Your task to perform on an android device: turn on bluetooth scan Image 0: 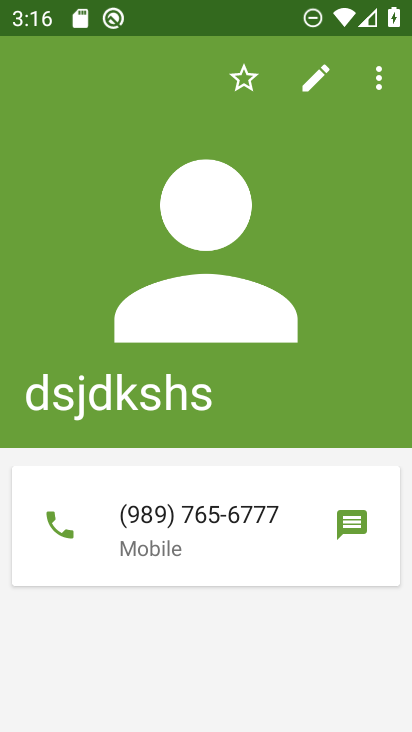
Step 0: press home button
Your task to perform on an android device: turn on bluetooth scan Image 1: 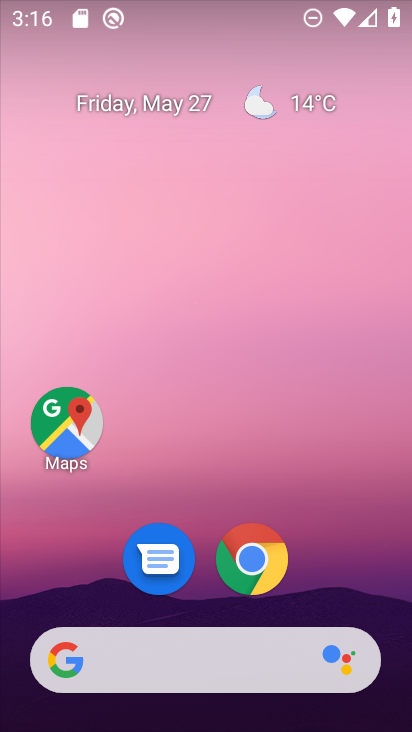
Step 1: drag from (255, 5) to (196, 513)
Your task to perform on an android device: turn on bluetooth scan Image 2: 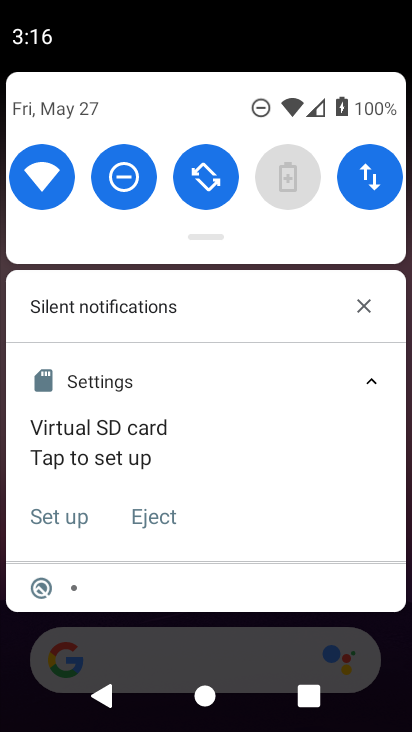
Step 2: click (16, 163)
Your task to perform on an android device: turn on bluetooth scan Image 3: 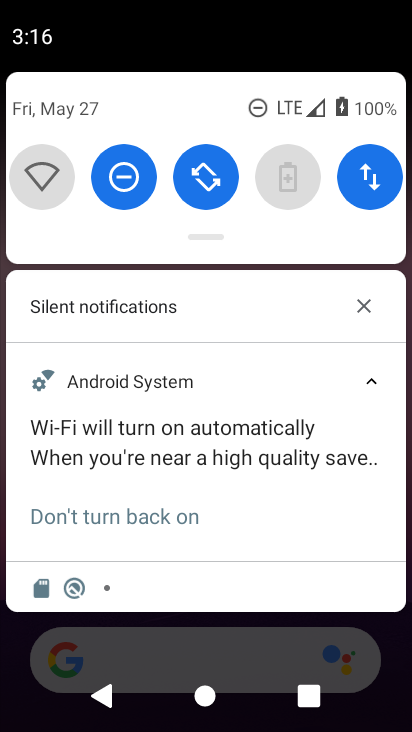
Step 3: drag from (393, 217) to (57, 193)
Your task to perform on an android device: turn on bluetooth scan Image 4: 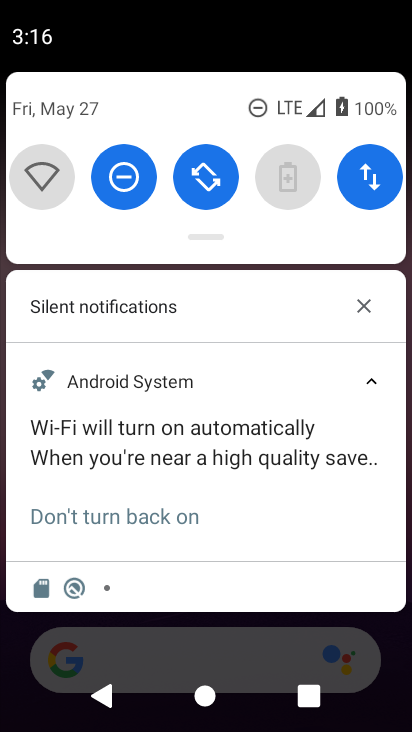
Step 4: click (211, 238)
Your task to perform on an android device: turn on bluetooth scan Image 5: 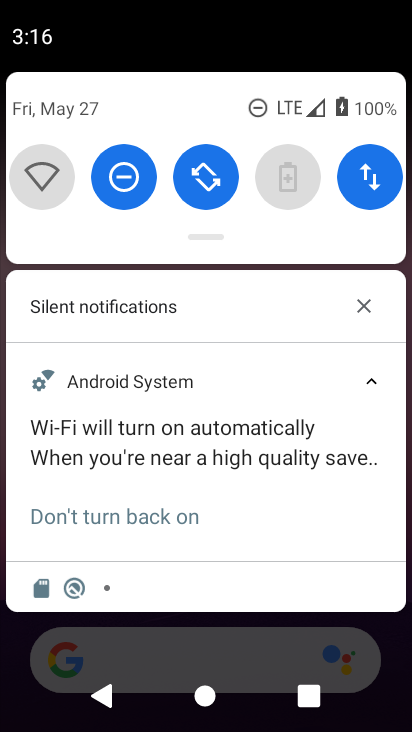
Step 5: drag from (211, 239) to (238, 562)
Your task to perform on an android device: turn on bluetooth scan Image 6: 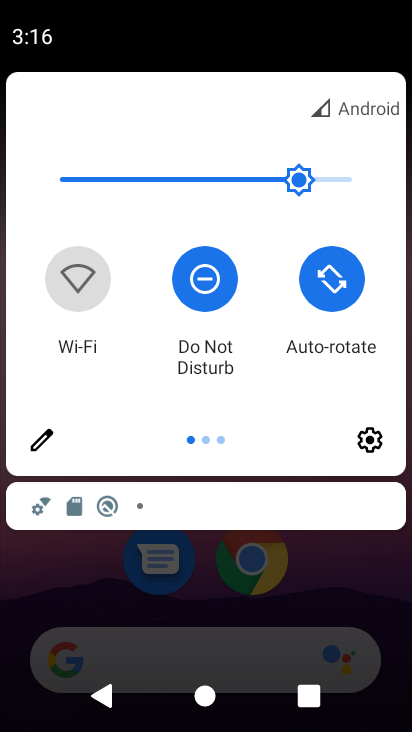
Step 6: click (75, 359)
Your task to perform on an android device: turn on bluetooth scan Image 7: 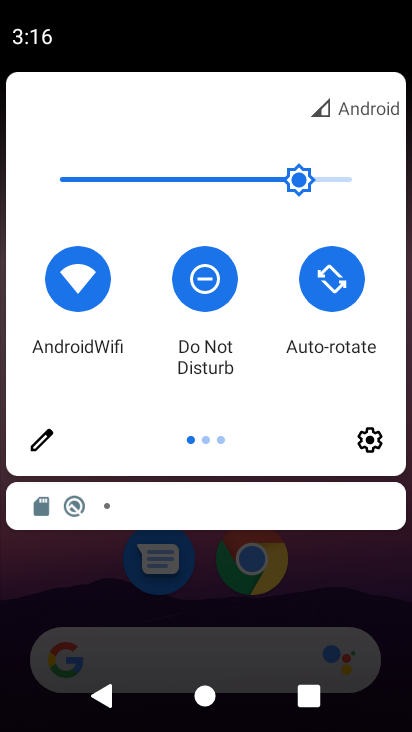
Step 7: drag from (82, 294) to (5, 304)
Your task to perform on an android device: turn on bluetooth scan Image 8: 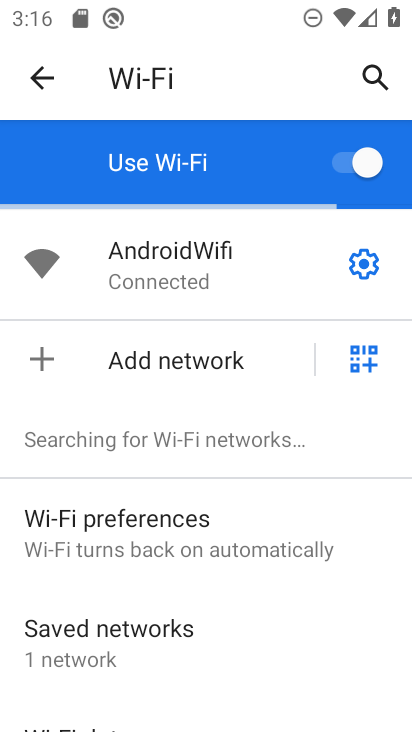
Step 8: drag from (158, 316) to (74, 312)
Your task to perform on an android device: turn on bluetooth scan Image 9: 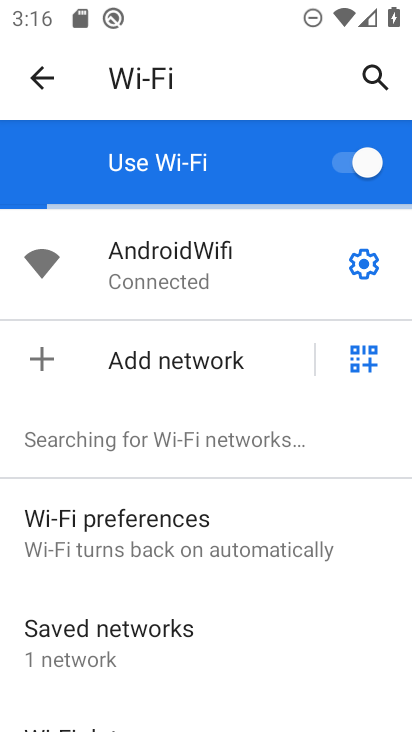
Step 9: drag from (338, 381) to (2, 368)
Your task to perform on an android device: turn on bluetooth scan Image 10: 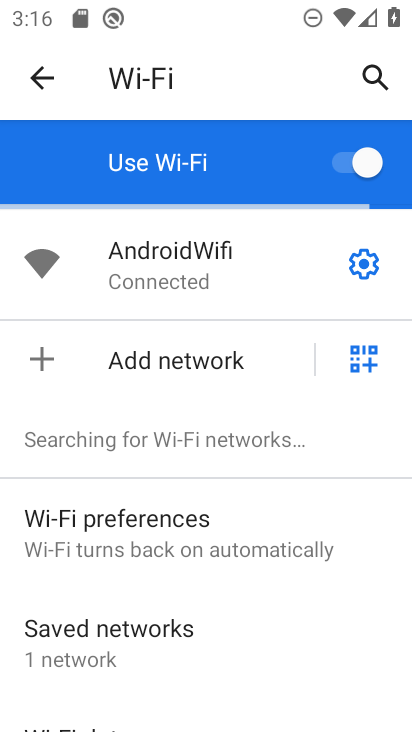
Step 10: click (375, 444)
Your task to perform on an android device: turn on bluetooth scan Image 11: 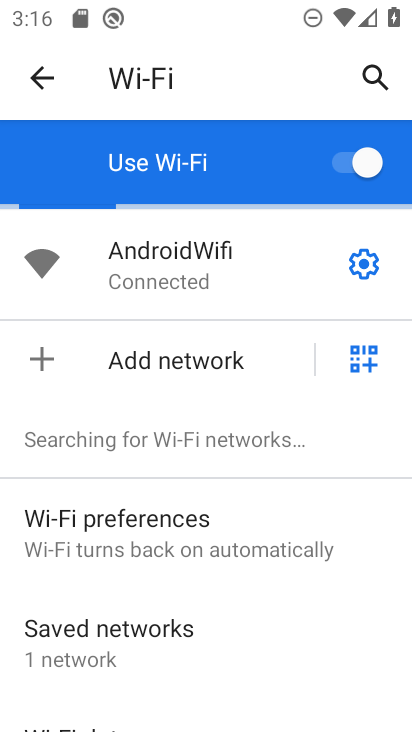
Step 11: click (30, 73)
Your task to perform on an android device: turn on bluetooth scan Image 12: 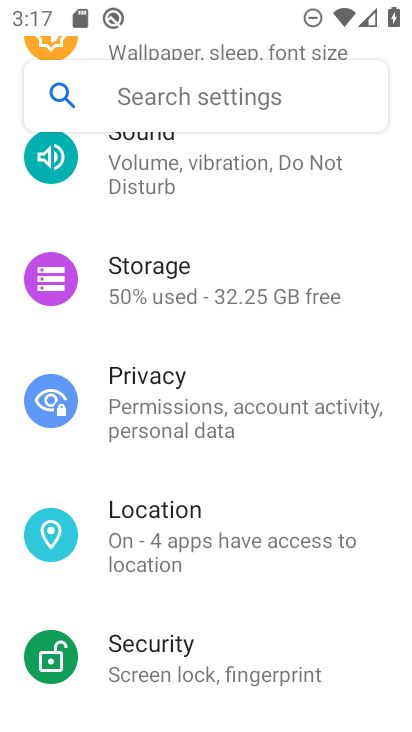
Step 12: drag from (296, 200) to (295, 610)
Your task to perform on an android device: turn on bluetooth scan Image 13: 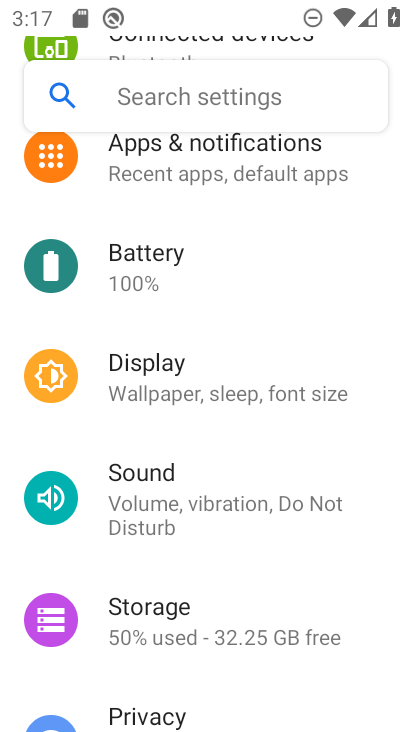
Step 13: drag from (241, 491) to (240, 570)
Your task to perform on an android device: turn on bluetooth scan Image 14: 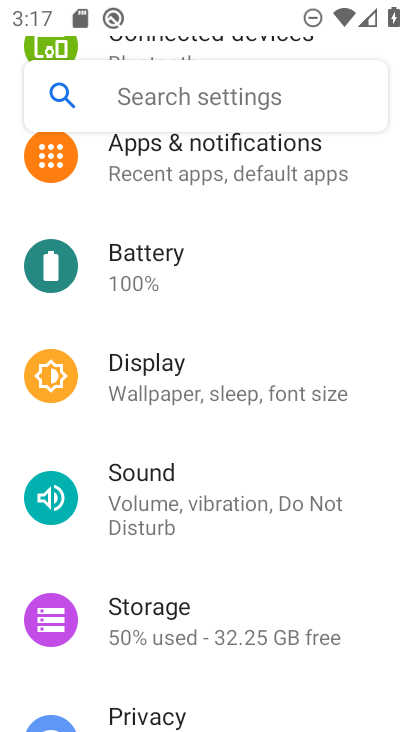
Step 14: drag from (261, 246) to (256, 561)
Your task to perform on an android device: turn on bluetooth scan Image 15: 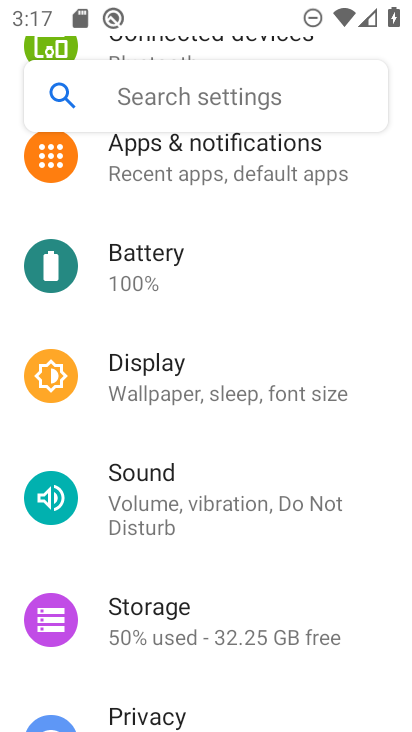
Step 15: drag from (346, 165) to (314, 474)
Your task to perform on an android device: turn on bluetooth scan Image 16: 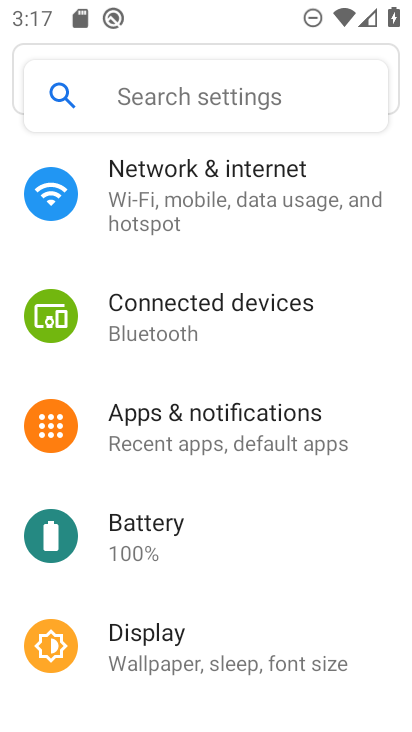
Step 16: drag from (246, 171) to (221, 449)
Your task to perform on an android device: turn on bluetooth scan Image 17: 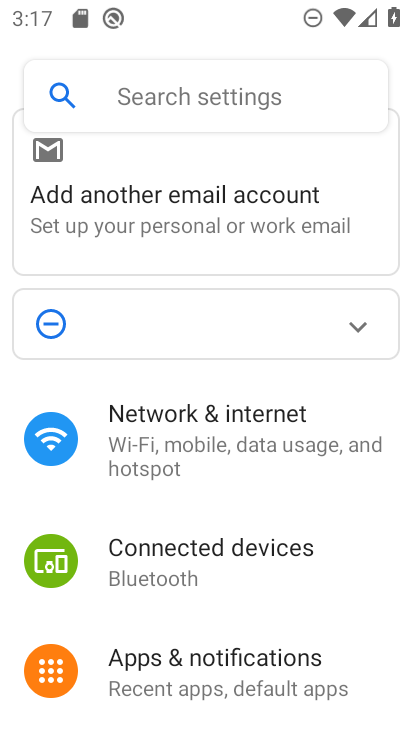
Step 17: click (168, 567)
Your task to perform on an android device: turn on bluetooth scan Image 18: 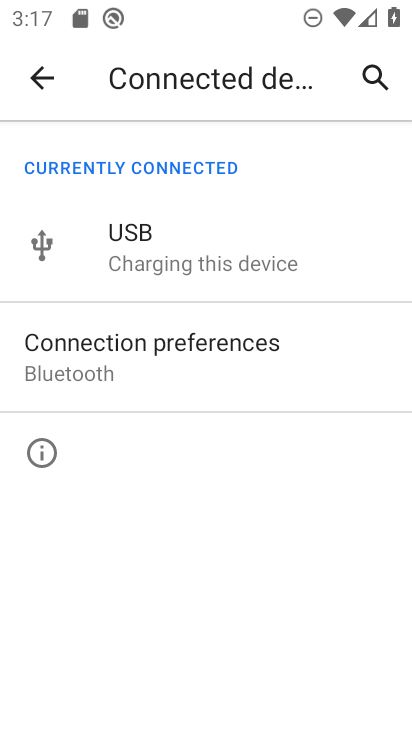
Step 18: click (43, 78)
Your task to perform on an android device: turn on bluetooth scan Image 19: 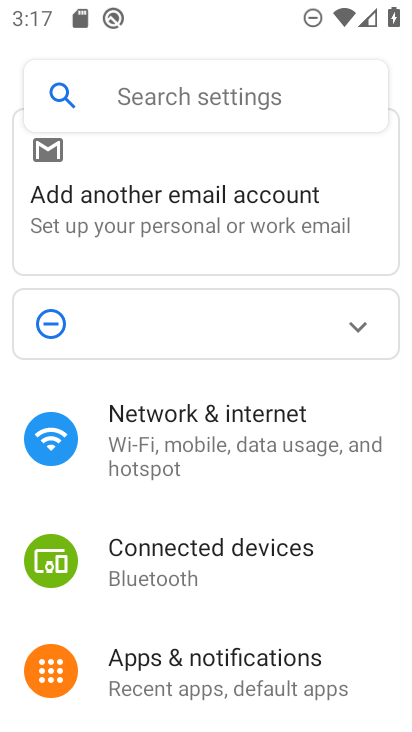
Step 19: click (241, 416)
Your task to perform on an android device: turn on bluetooth scan Image 20: 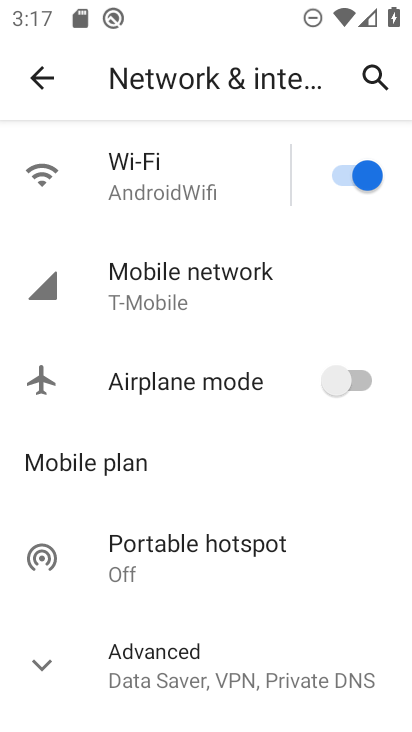
Step 20: drag from (218, 603) to (193, 302)
Your task to perform on an android device: turn on bluetooth scan Image 21: 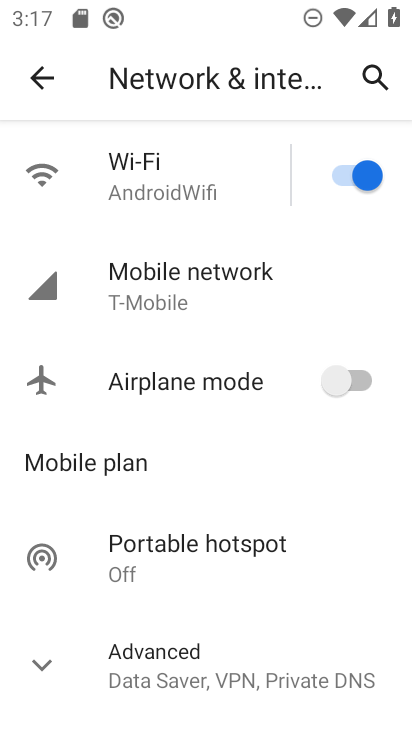
Step 21: press back button
Your task to perform on an android device: turn on bluetooth scan Image 22: 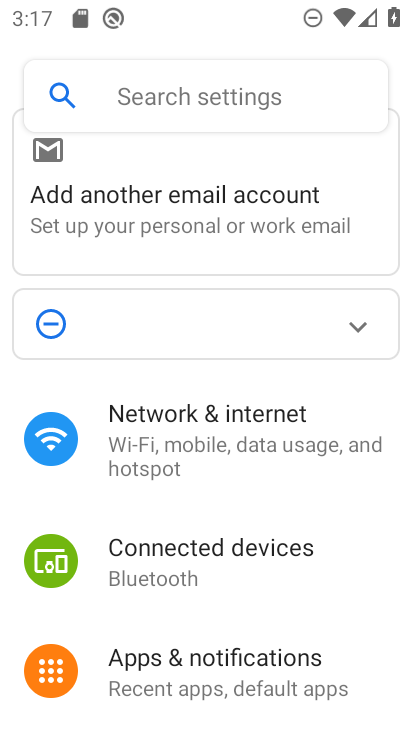
Step 22: drag from (288, 9) to (240, 445)
Your task to perform on an android device: turn on bluetooth scan Image 23: 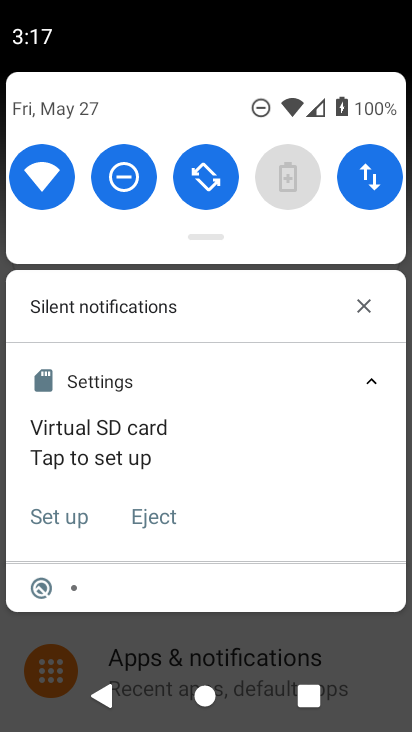
Step 23: drag from (210, 231) to (166, 548)
Your task to perform on an android device: turn on bluetooth scan Image 24: 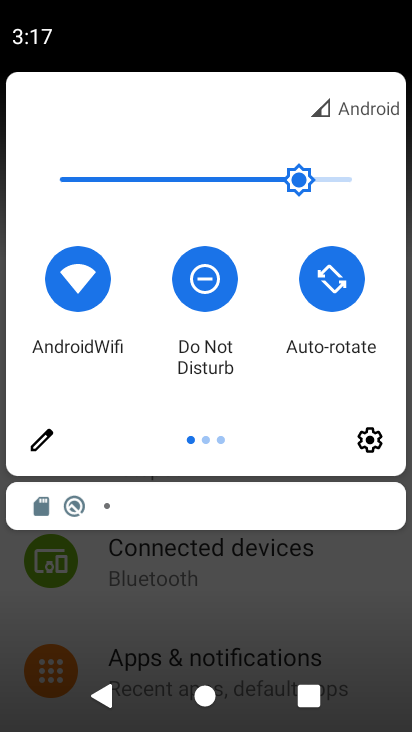
Step 24: drag from (277, 372) to (61, 363)
Your task to perform on an android device: turn on bluetooth scan Image 25: 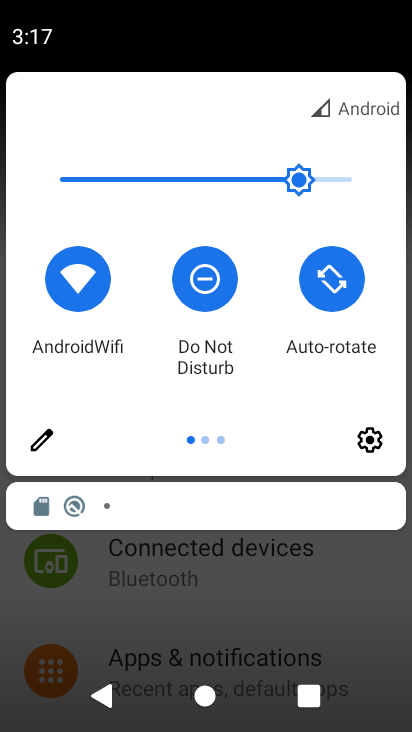
Step 25: drag from (285, 391) to (5, 696)
Your task to perform on an android device: turn on bluetooth scan Image 26: 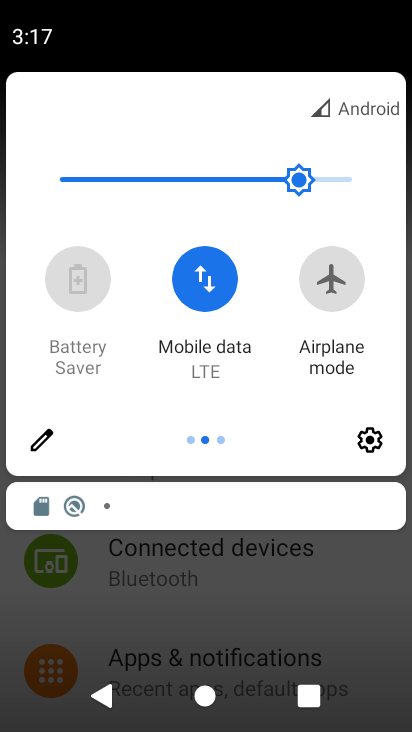
Step 26: drag from (310, 393) to (7, 481)
Your task to perform on an android device: turn on bluetooth scan Image 27: 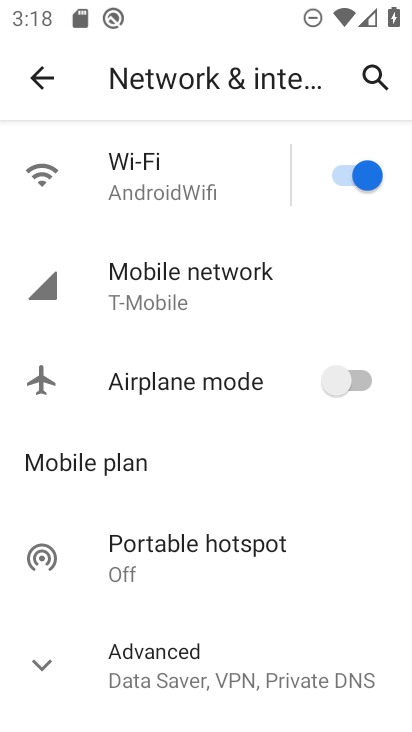
Step 27: click (250, 553)
Your task to perform on an android device: turn on bluetooth scan Image 28: 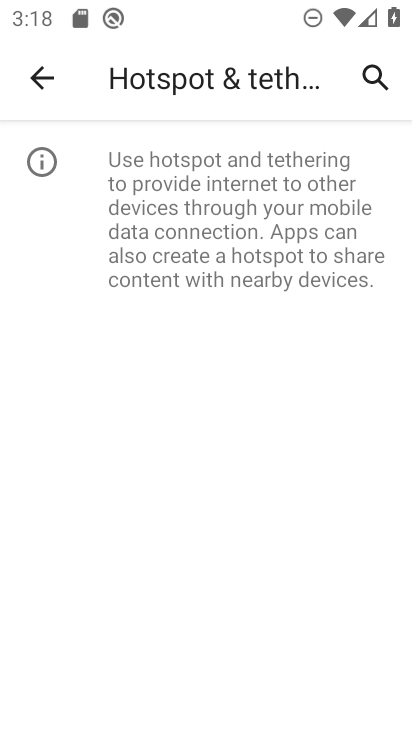
Step 28: click (38, 78)
Your task to perform on an android device: turn on bluetooth scan Image 29: 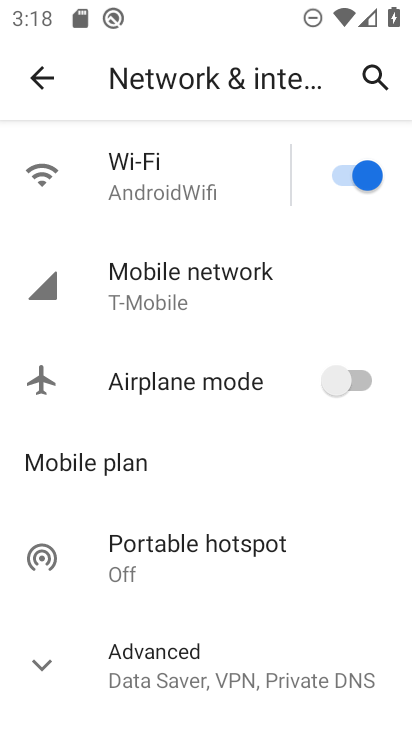
Step 29: press back button
Your task to perform on an android device: turn on bluetooth scan Image 30: 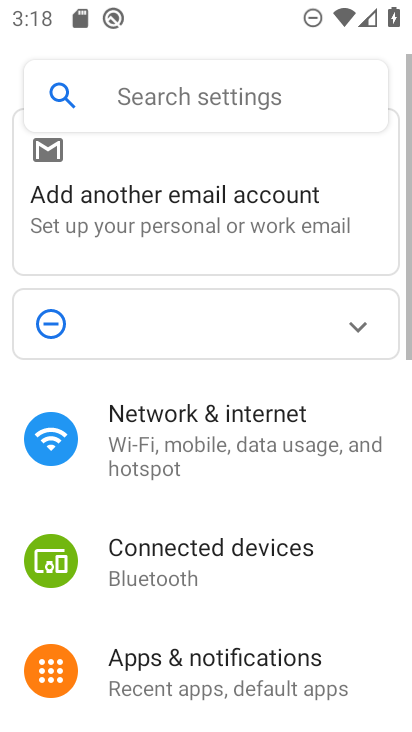
Step 30: drag from (280, 2) to (184, 544)
Your task to perform on an android device: turn on bluetooth scan Image 31: 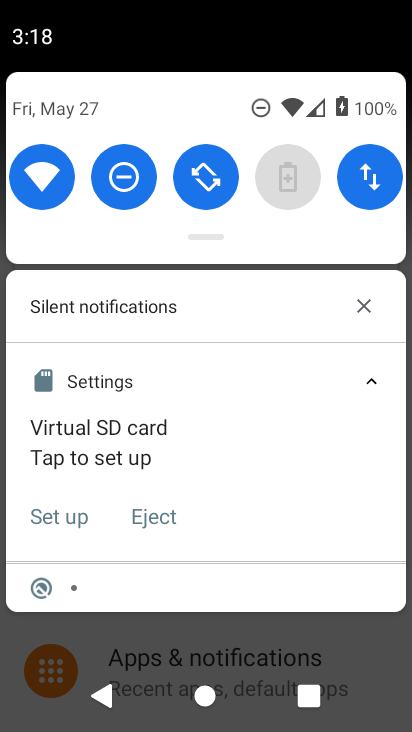
Step 31: drag from (203, 230) to (182, 516)
Your task to perform on an android device: turn on bluetooth scan Image 32: 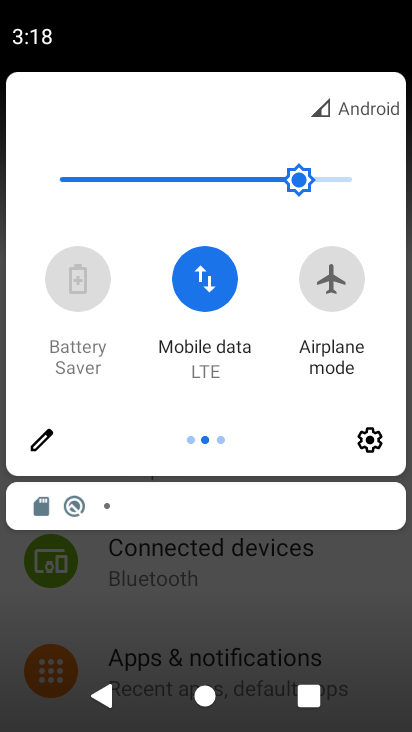
Step 32: drag from (349, 366) to (26, 553)
Your task to perform on an android device: turn on bluetooth scan Image 33: 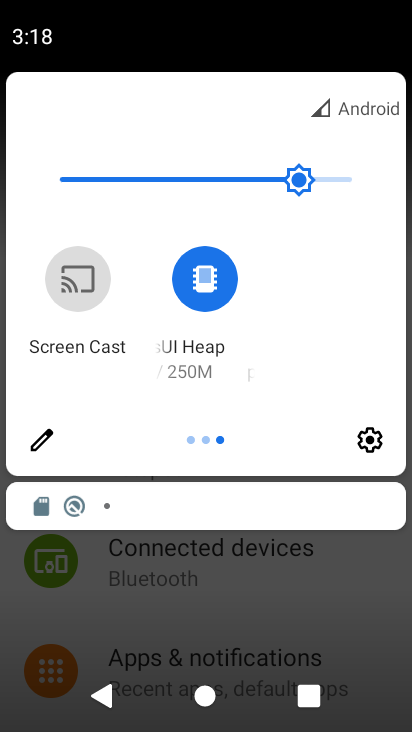
Step 33: drag from (284, 386) to (392, 422)
Your task to perform on an android device: turn on bluetooth scan Image 34: 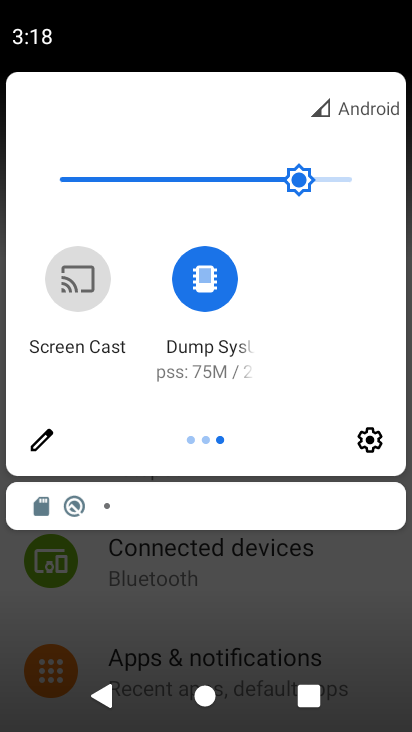
Step 34: drag from (132, 386) to (408, 422)
Your task to perform on an android device: turn on bluetooth scan Image 35: 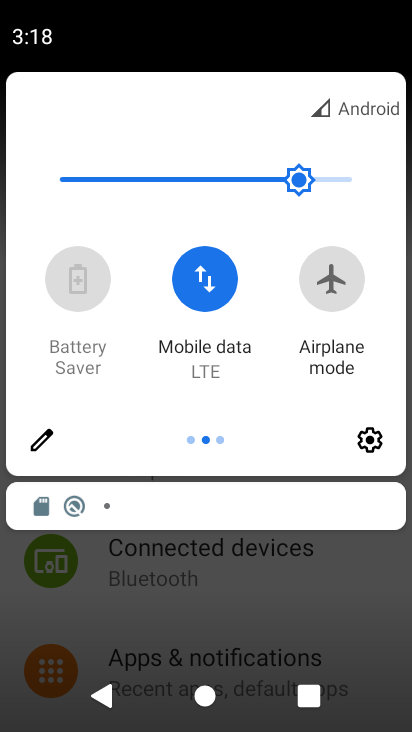
Step 35: drag from (118, 398) to (406, 368)
Your task to perform on an android device: turn on bluetooth scan Image 36: 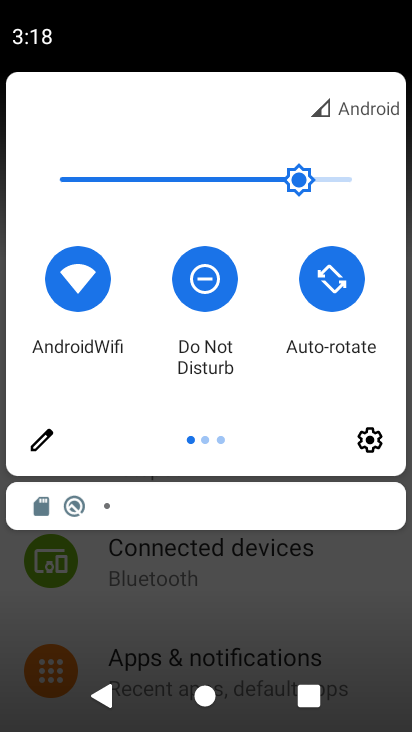
Step 36: click (390, 619)
Your task to perform on an android device: turn on bluetooth scan Image 37: 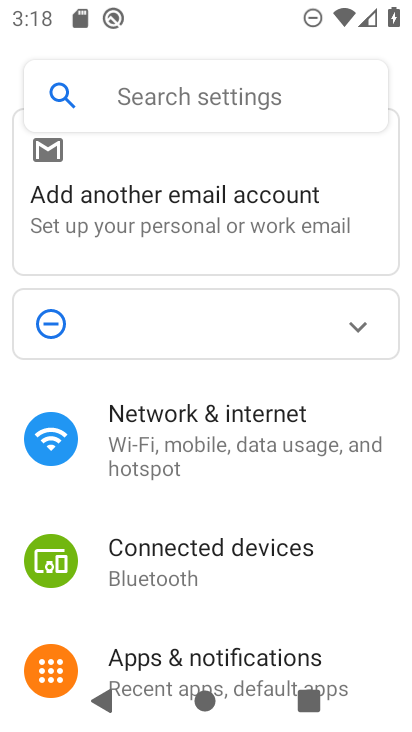
Step 37: click (376, 604)
Your task to perform on an android device: turn on bluetooth scan Image 38: 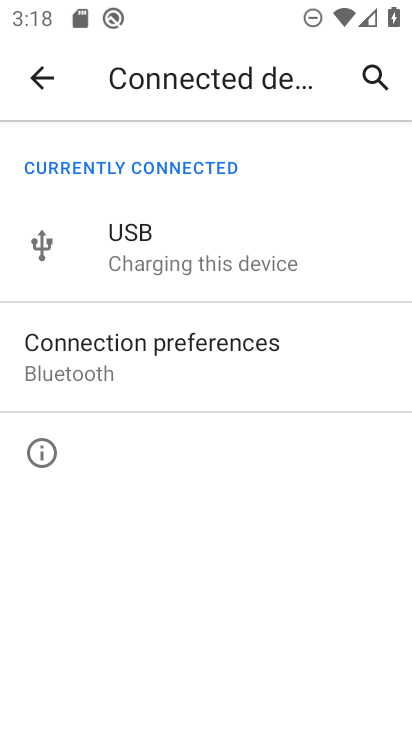
Step 38: press back button
Your task to perform on an android device: turn on bluetooth scan Image 39: 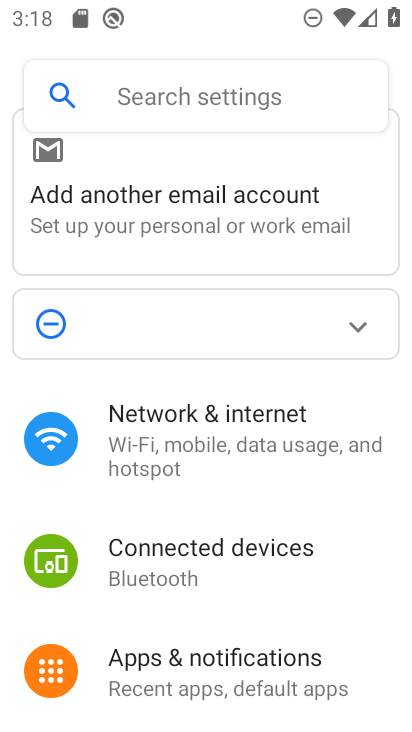
Step 39: drag from (253, 506) to (221, 135)
Your task to perform on an android device: turn on bluetooth scan Image 40: 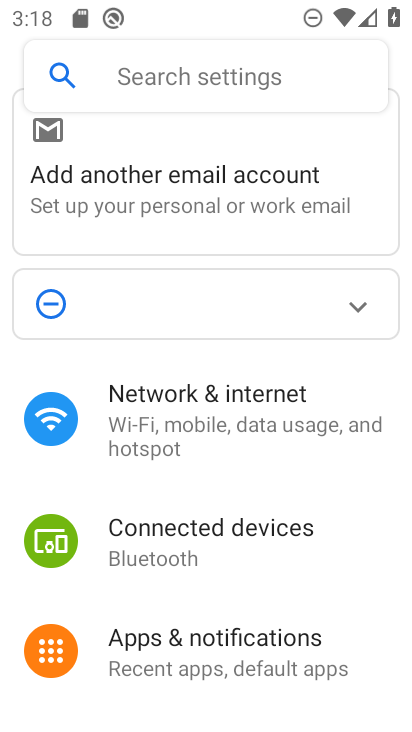
Step 40: click (231, 279)
Your task to perform on an android device: turn on bluetooth scan Image 41: 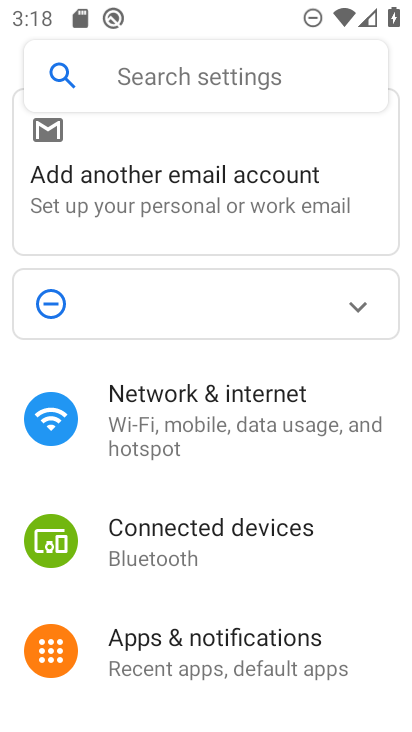
Step 41: drag from (324, 598) to (275, 217)
Your task to perform on an android device: turn on bluetooth scan Image 42: 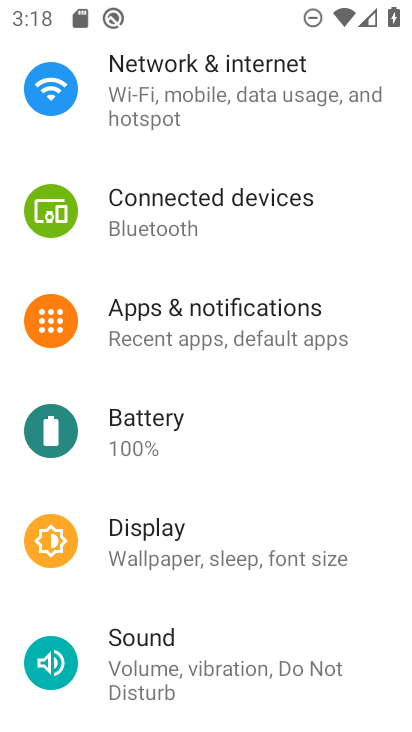
Step 42: drag from (242, 645) to (225, 187)
Your task to perform on an android device: turn on bluetooth scan Image 43: 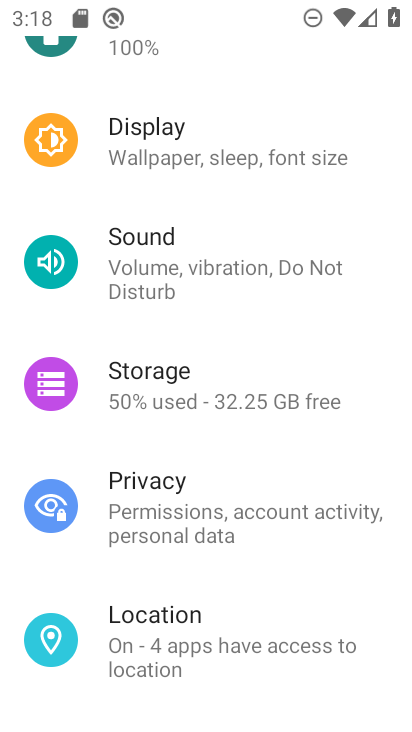
Step 43: click (189, 629)
Your task to perform on an android device: turn on bluetooth scan Image 44: 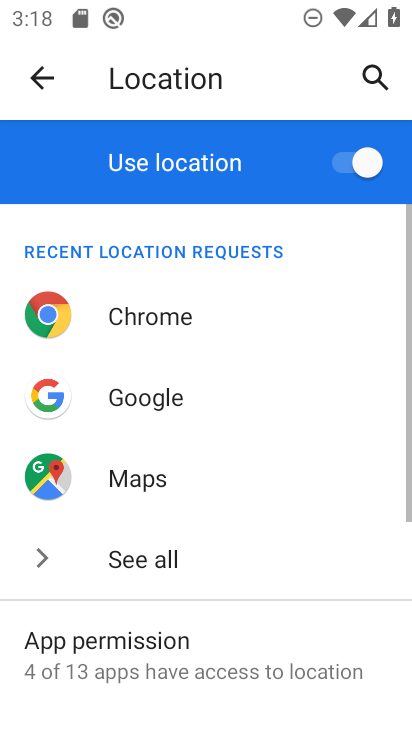
Step 44: drag from (285, 620) to (285, 228)
Your task to perform on an android device: turn on bluetooth scan Image 45: 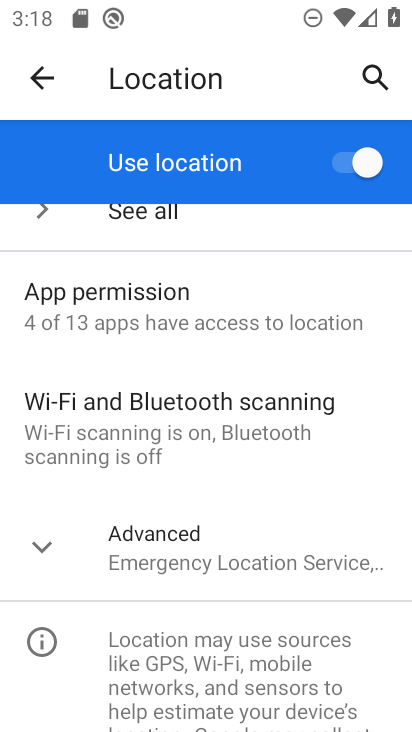
Step 45: click (172, 412)
Your task to perform on an android device: turn on bluetooth scan Image 46: 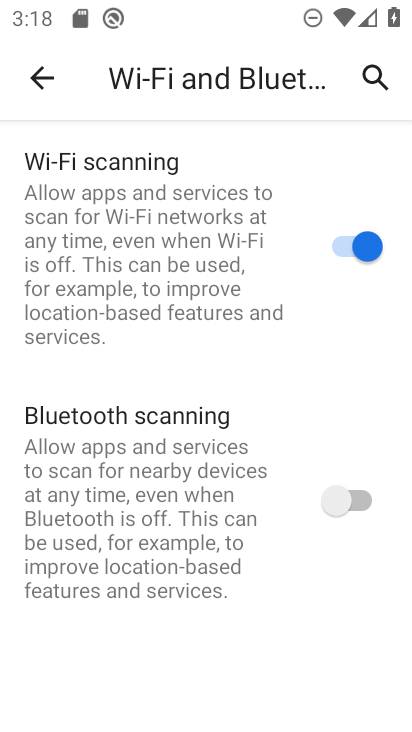
Step 46: click (362, 504)
Your task to perform on an android device: turn on bluetooth scan Image 47: 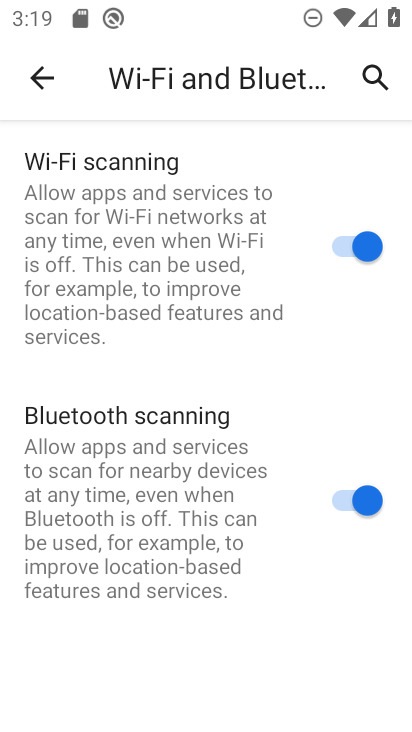
Step 47: task complete